Your task to perform on an android device: turn off sleep mode Image 0: 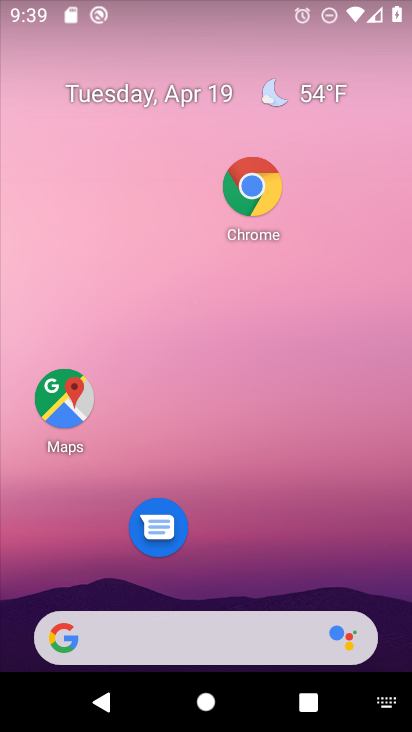
Step 0: drag from (266, 533) to (289, 252)
Your task to perform on an android device: turn off sleep mode Image 1: 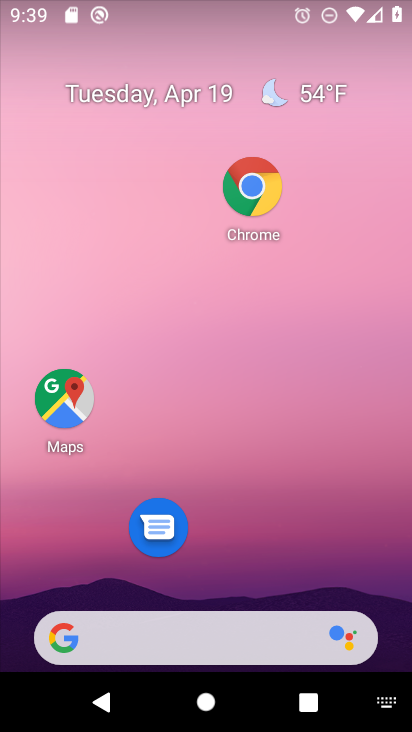
Step 1: drag from (248, 549) to (248, 246)
Your task to perform on an android device: turn off sleep mode Image 2: 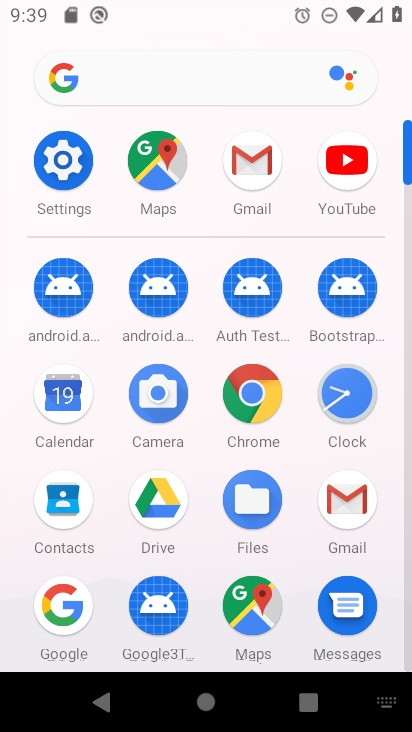
Step 2: click (58, 157)
Your task to perform on an android device: turn off sleep mode Image 3: 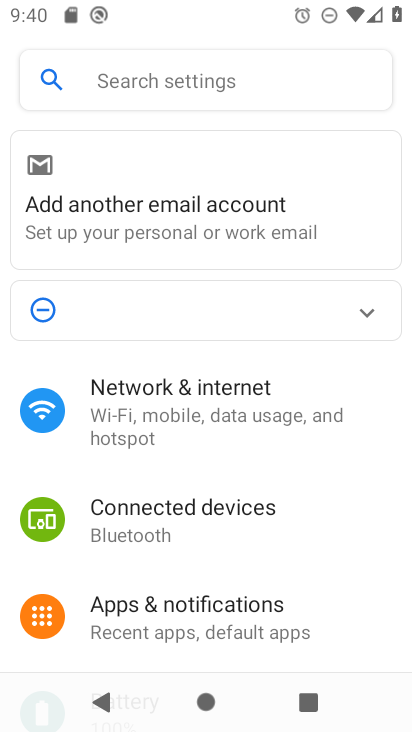
Step 3: task complete